Your task to perform on an android device: Search for pizza restaurants on Maps Image 0: 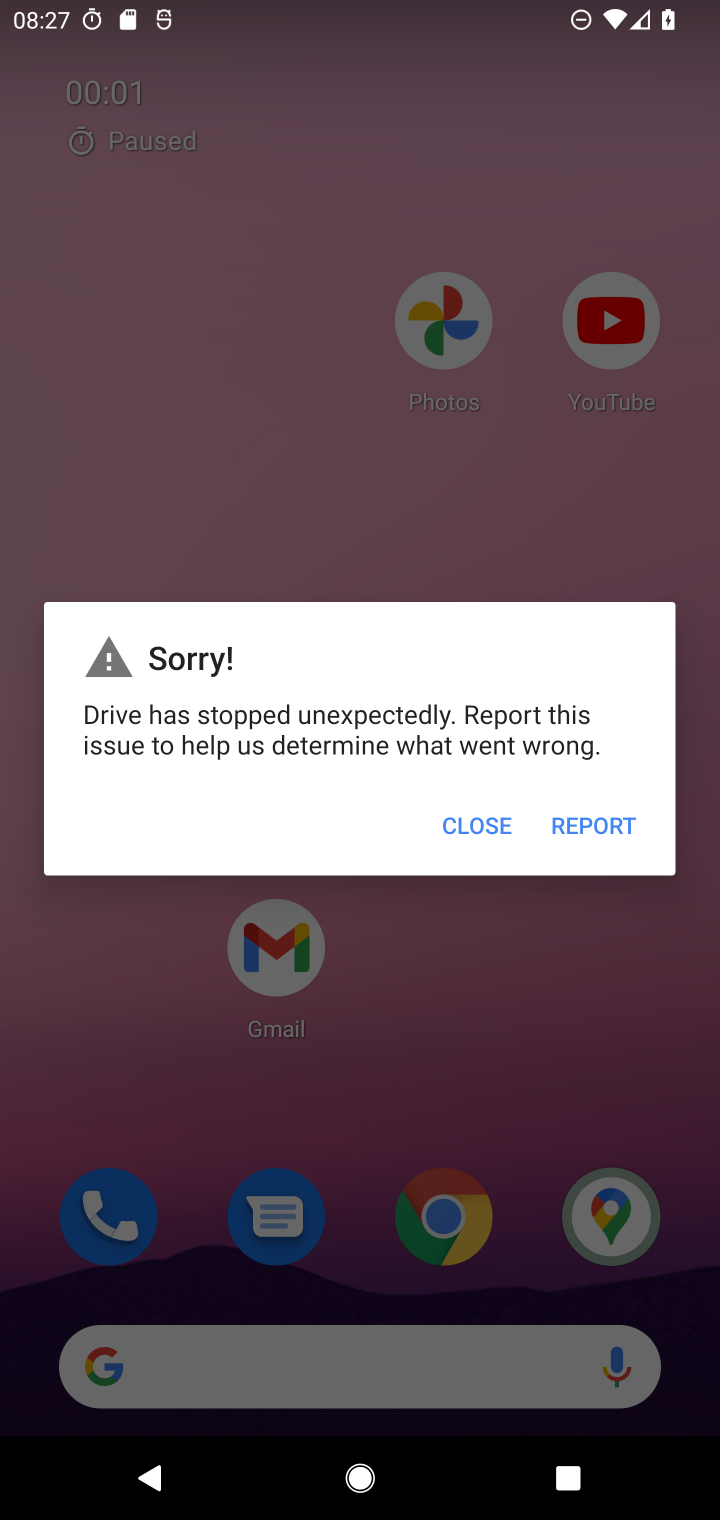
Step 0: press home button
Your task to perform on an android device: Search for pizza restaurants on Maps Image 1: 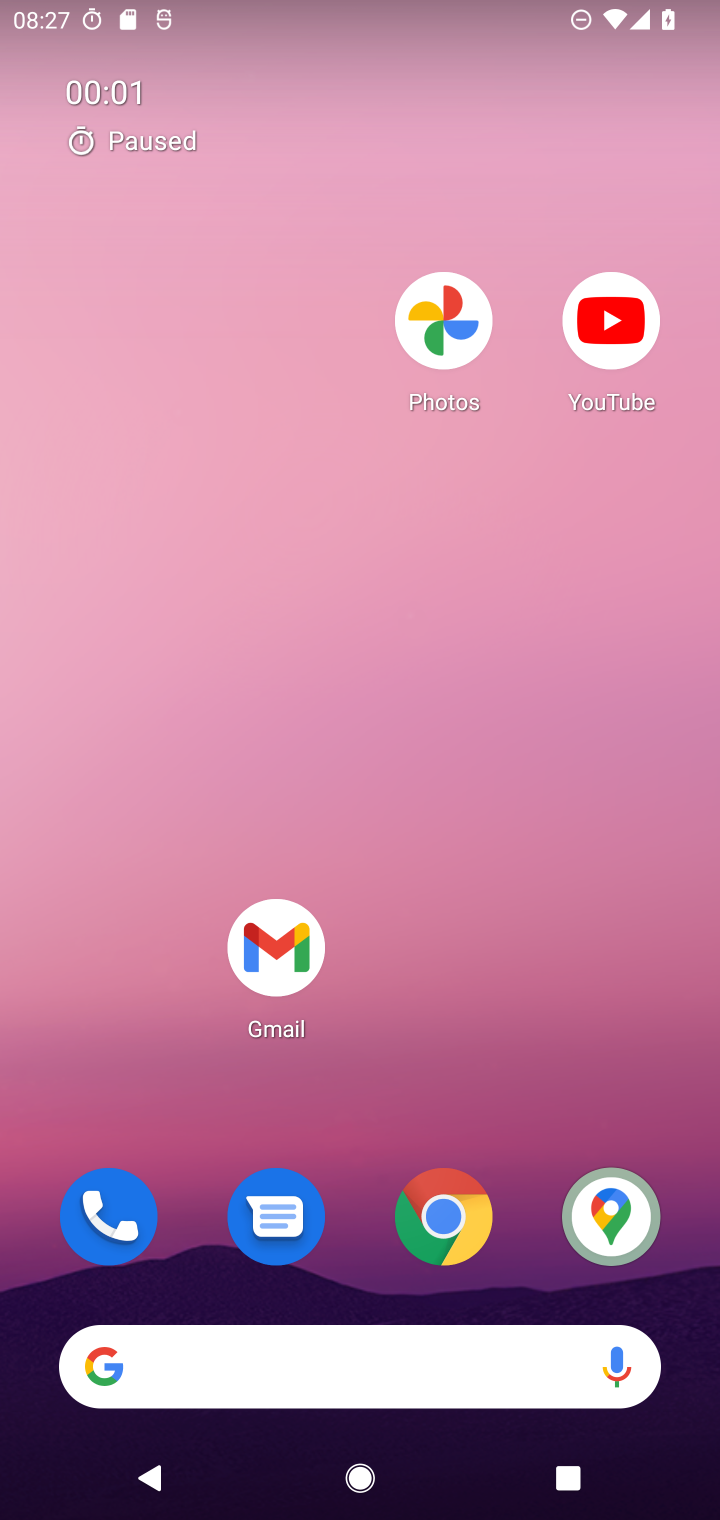
Step 1: drag from (505, 1023) to (460, 33)
Your task to perform on an android device: Search for pizza restaurants on Maps Image 2: 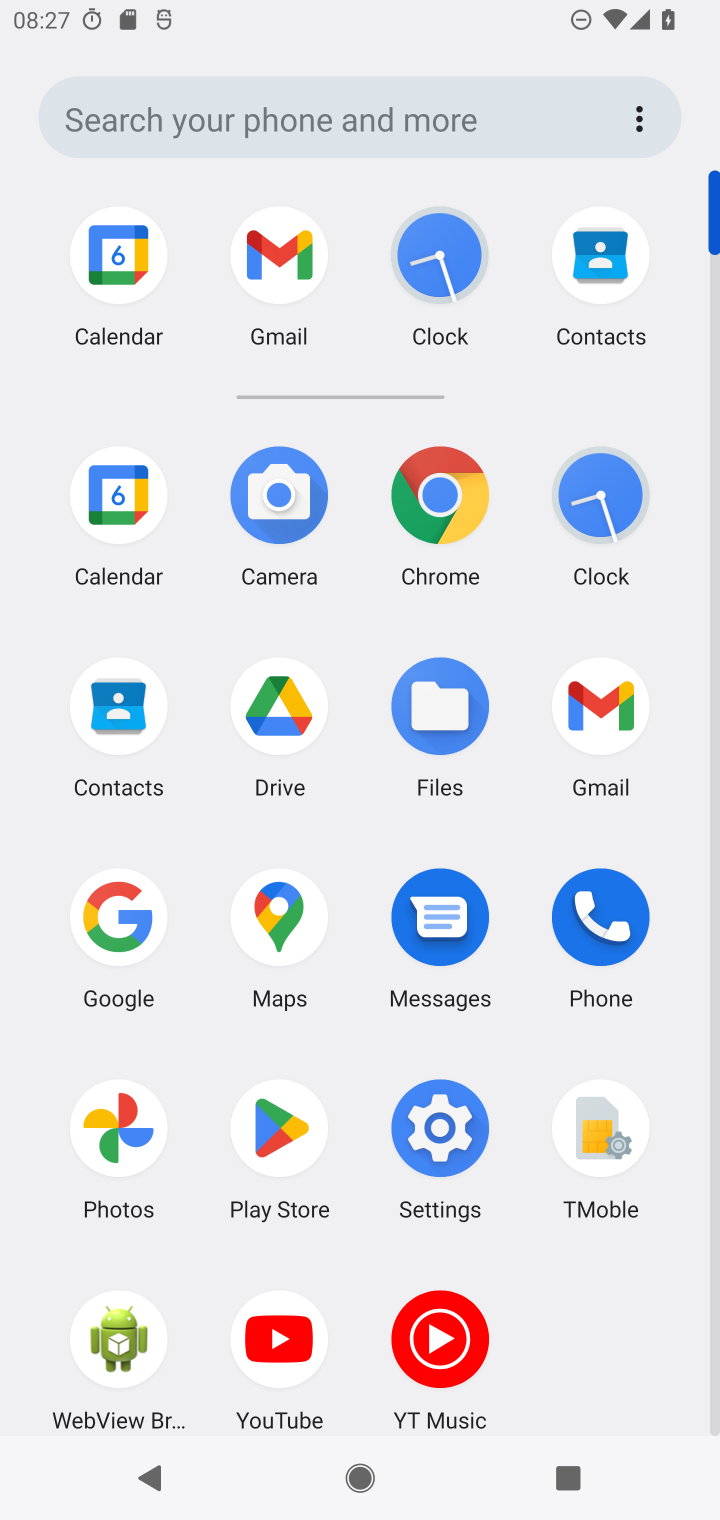
Step 2: click (280, 914)
Your task to perform on an android device: Search for pizza restaurants on Maps Image 3: 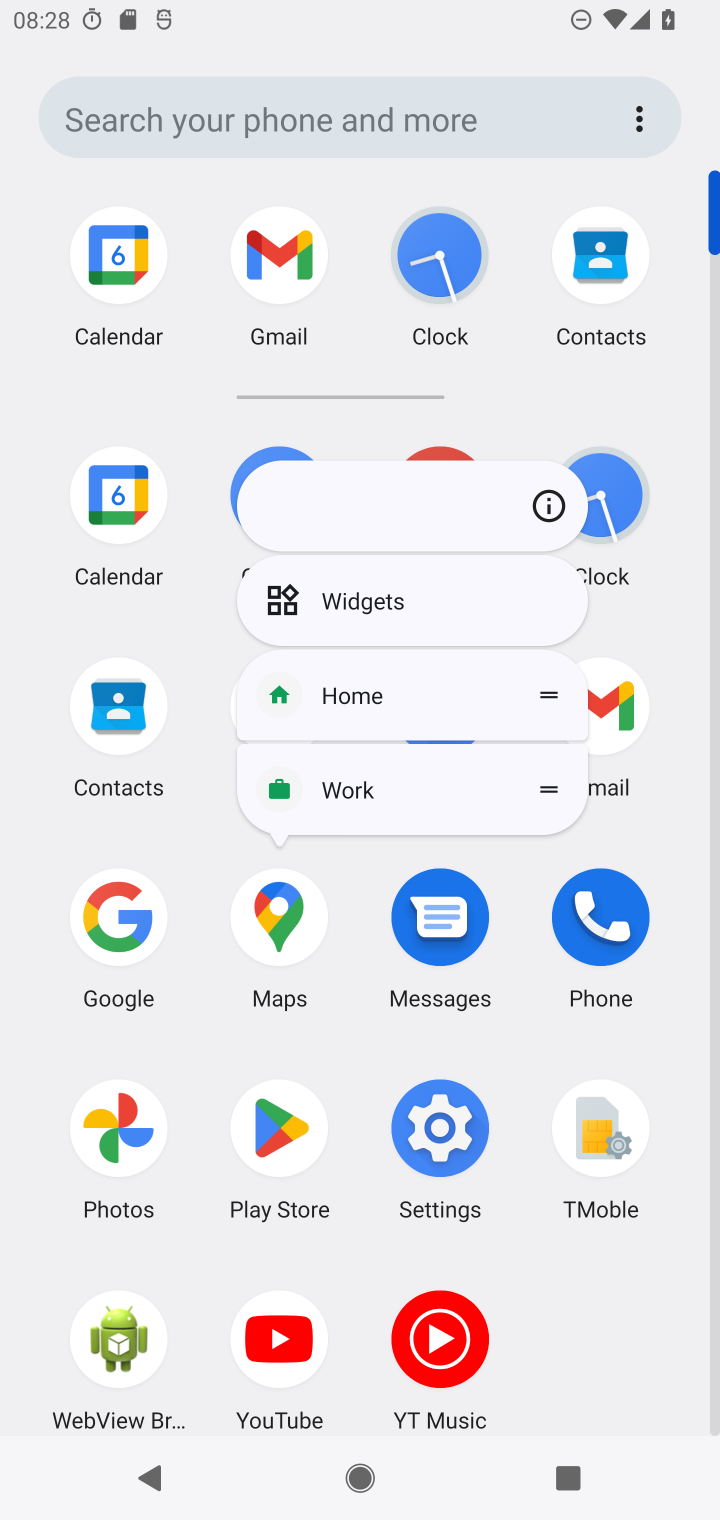
Step 3: click (280, 914)
Your task to perform on an android device: Search for pizza restaurants on Maps Image 4: 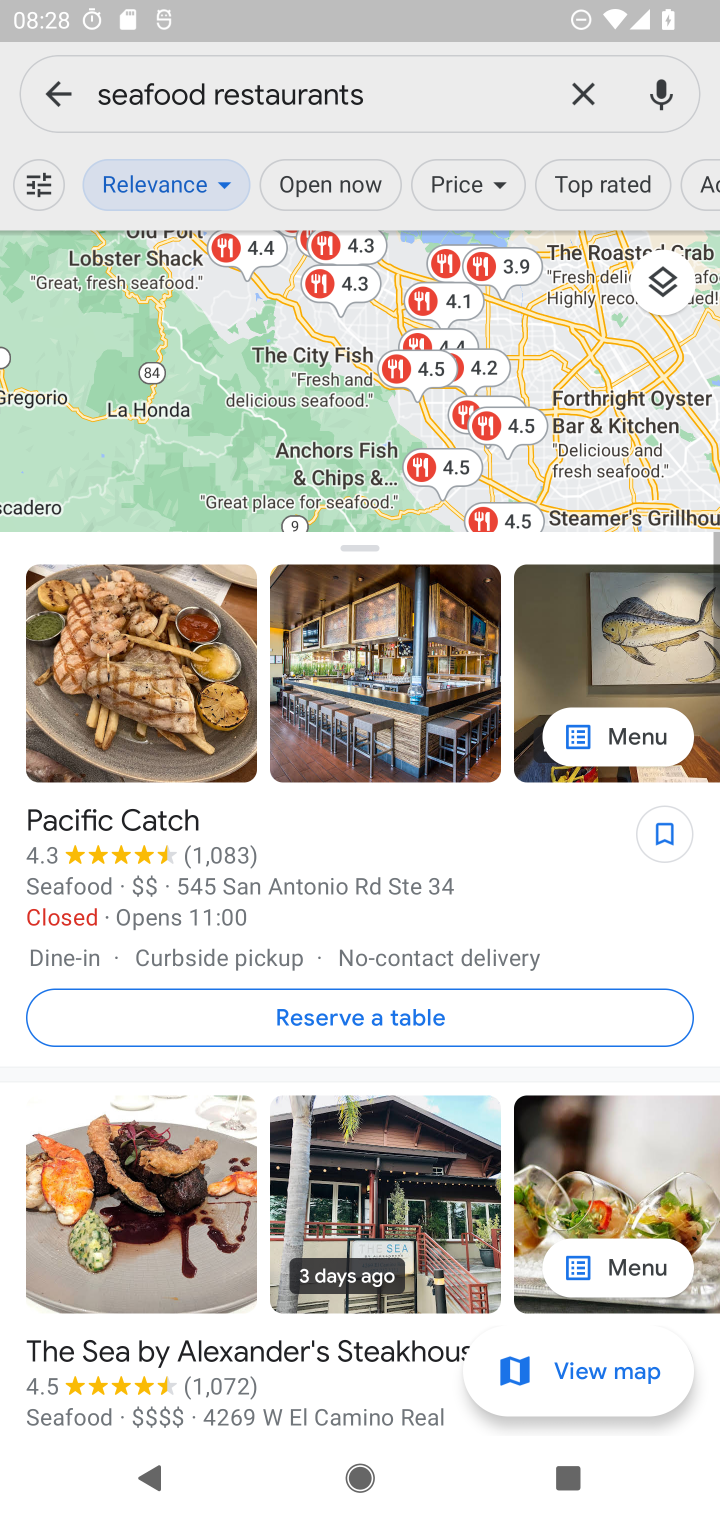
Step 4: click (308, 106)
Your task to perform on an android device: Search for pizza restaurants on Maps Image 5: 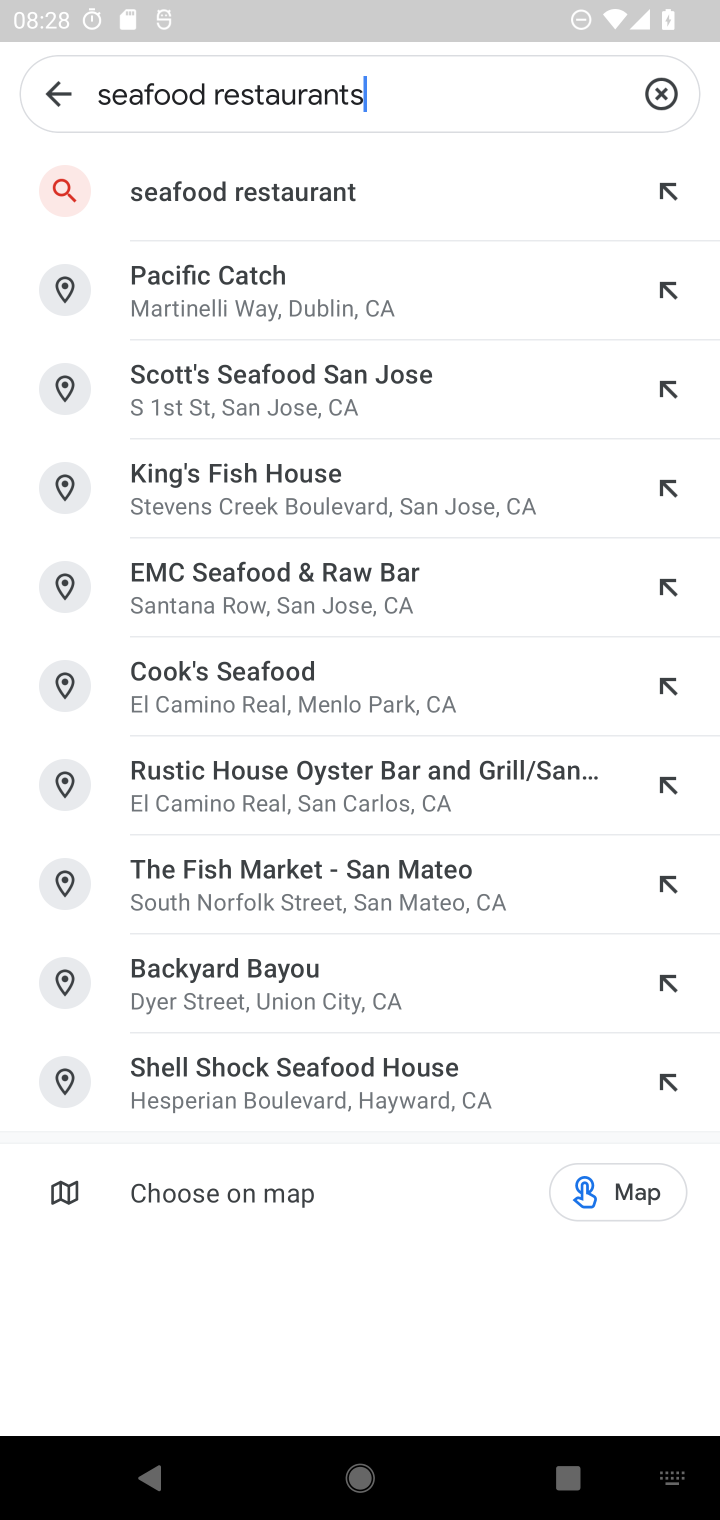
Step 5: click (653, 88)
Your task to perform on an android device: Search for pizza restaurants on Maps Image 6: 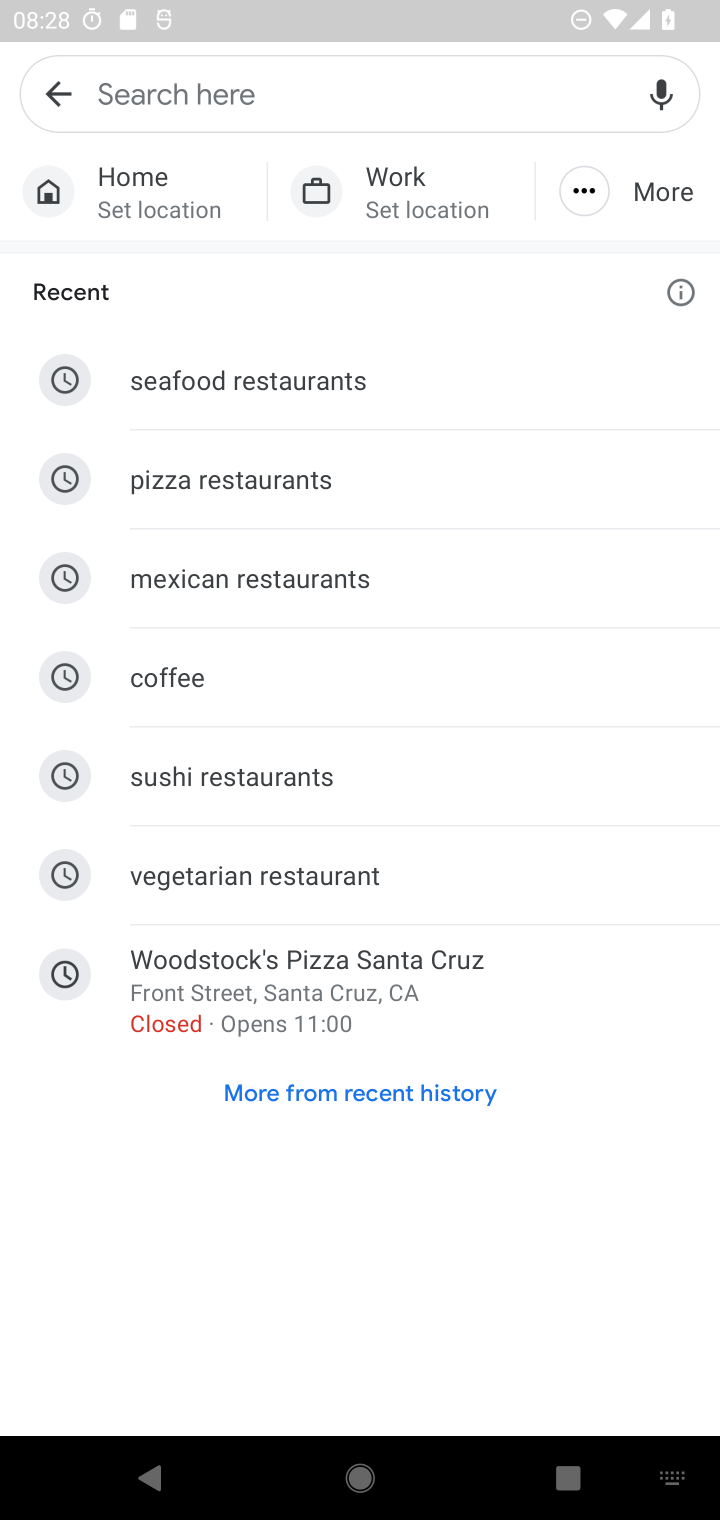
Step 6: type "pizza restaurants"
Your task to perform on an android device: Search for pizza restaurants on Maps Image 7: 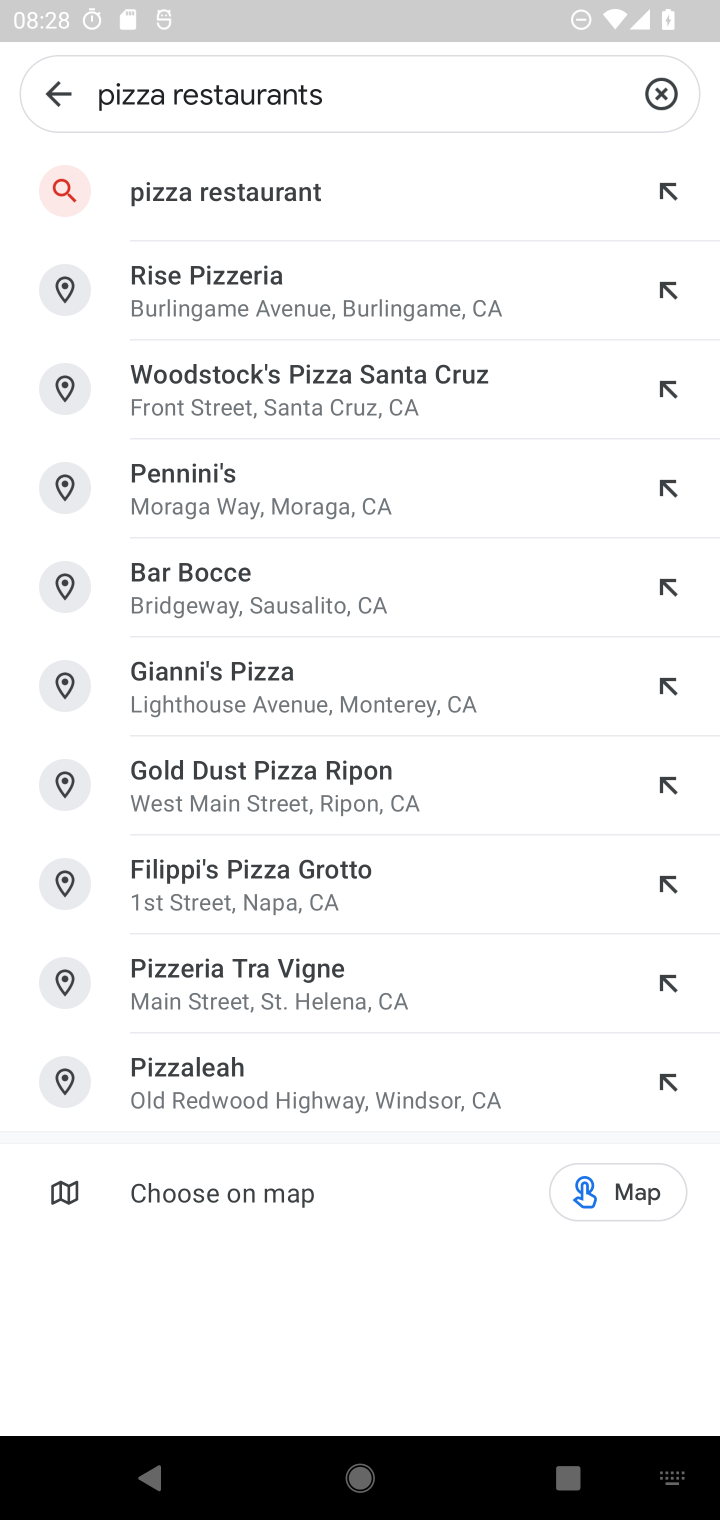
Step 7: press enter
Your task to perform on an android device: Search for pizza restaurants on Maps Image 8: 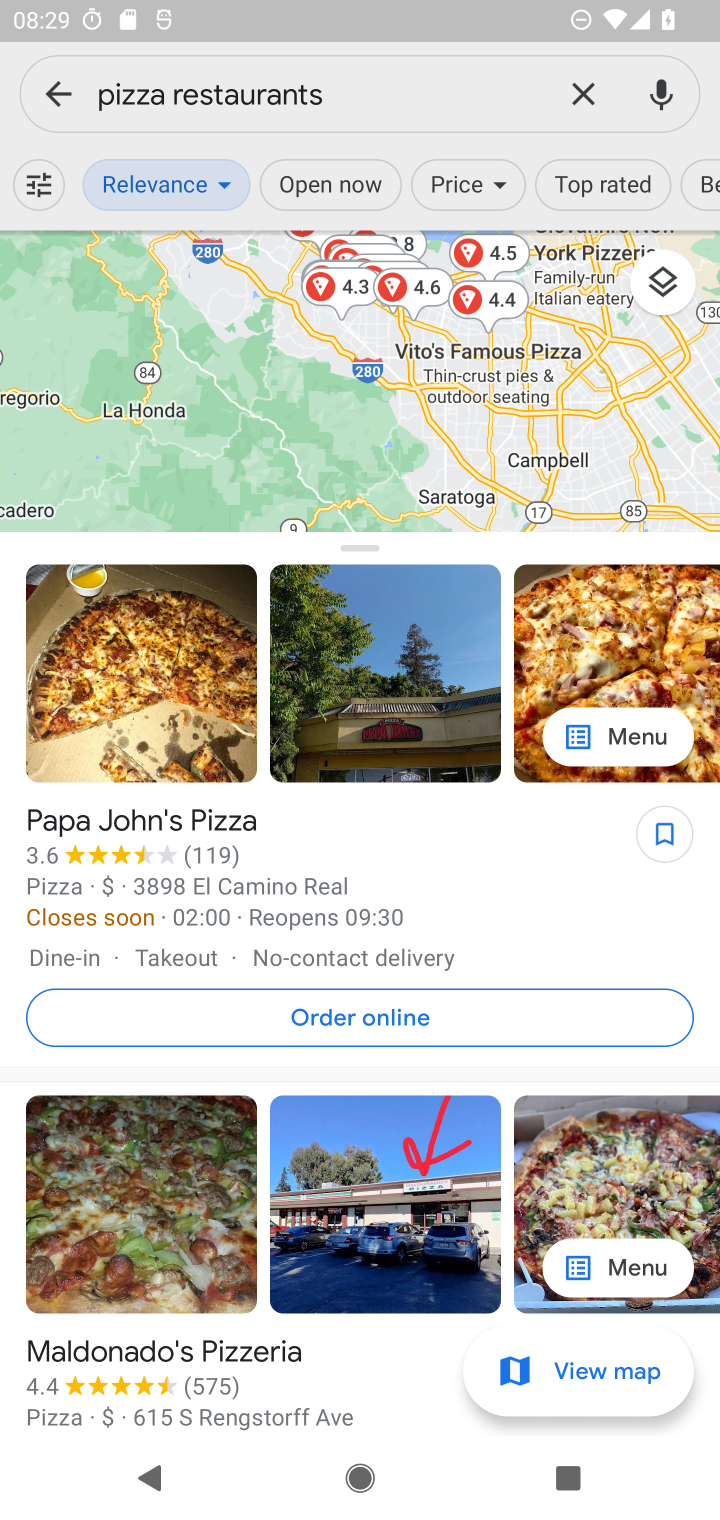
Step 8: task complete